Your task to perform on an android device: open chrome and create a bookmark for the current page Image 0: 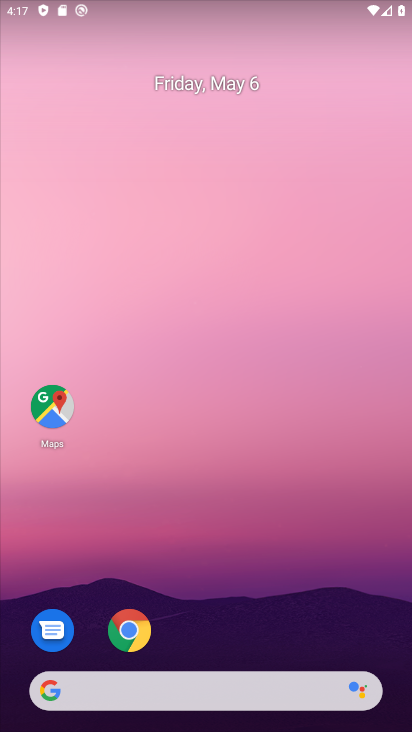
Step 0: click (140, 642)
Your task to perform on an android device: open chrome and create a bookmark for the current page Image 1: 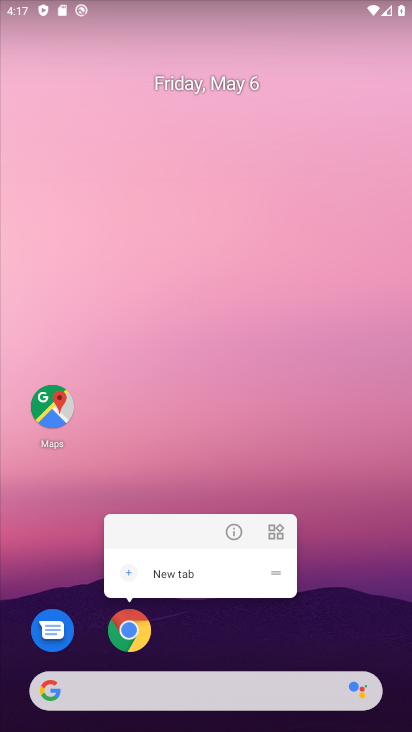
Step 1: click (138, 642)
Your task to perform on an android device: open chrome and create a bookmark for the current page Image 2: 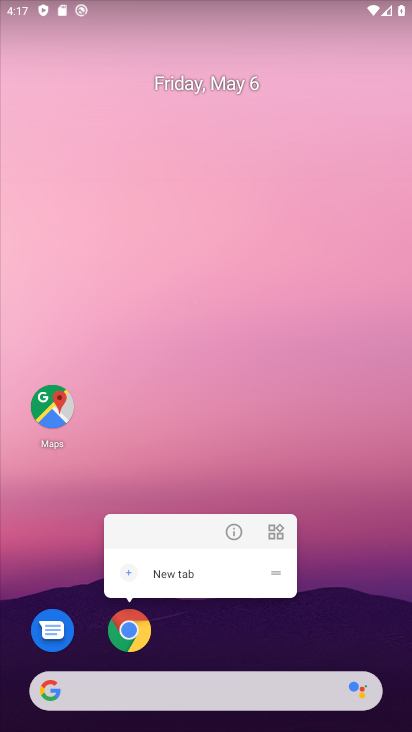
Step 2: click (138, 642)
Your task to perform on an android device: open chrome and create a bookmark for the current page Image 3: 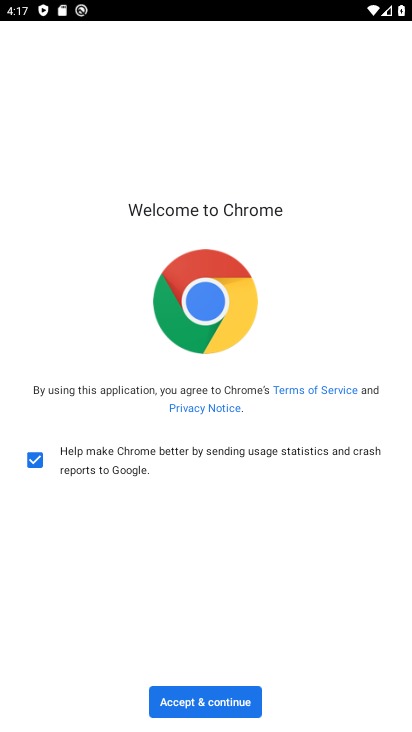
Step 3: click (203, 704)
Your task to perform on an android device: open chrome and create a bookmark for the current page Image 4: 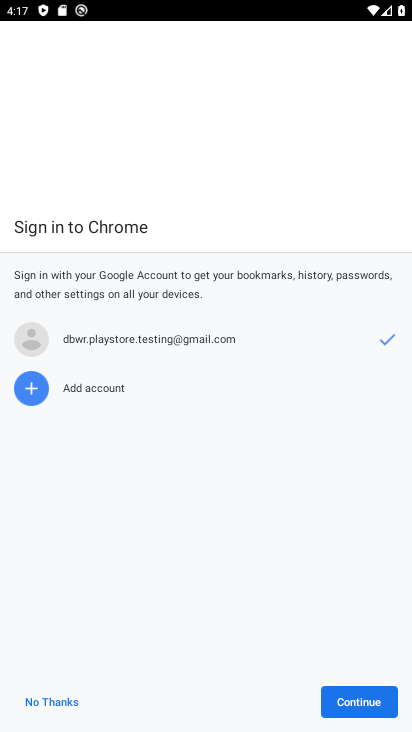
Step 4: click (382, 693)
Your task to perform on an android device: open chrome and create a bookmark for the current page Image 5: 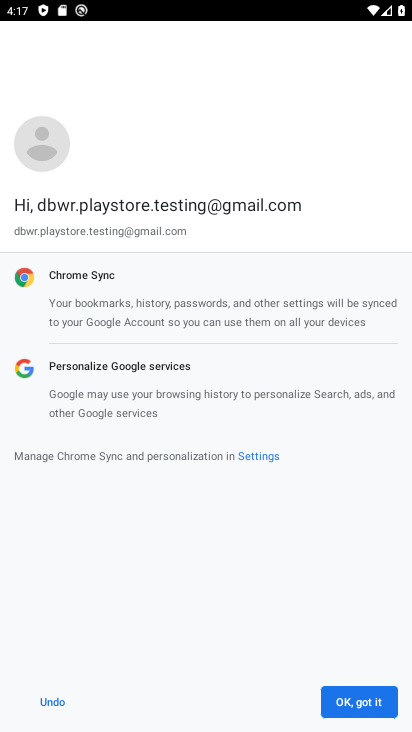
Step 5: click (368, 694)
Your task to perform on an android device: open chrome and create a bookmark for the current page Image 6: 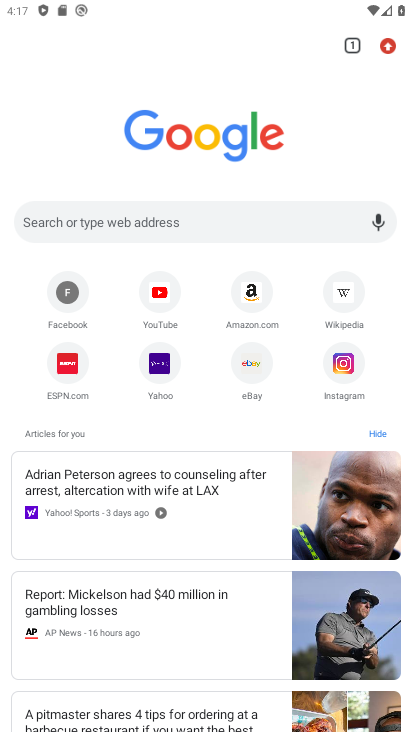
Step 6: click (378, 50)
Your task to perform on an android device: open chrome and create a bookmark for the current page Image 7: 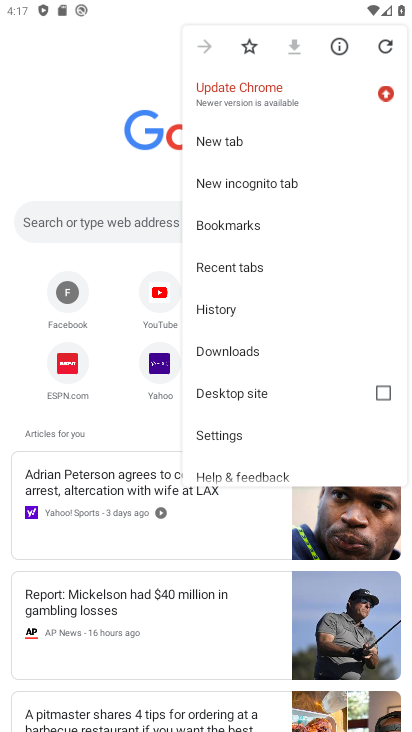
Step 7: click (252, 49)
Your task to perform on an android device: open chrome and create a bookmark for the current page Image 8: 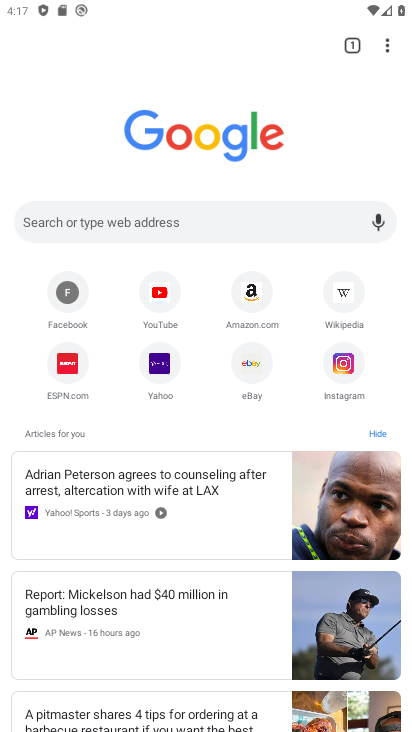
Step 8: task complete